Your task to perform on an android device: change the upload size in google photos Image 0: 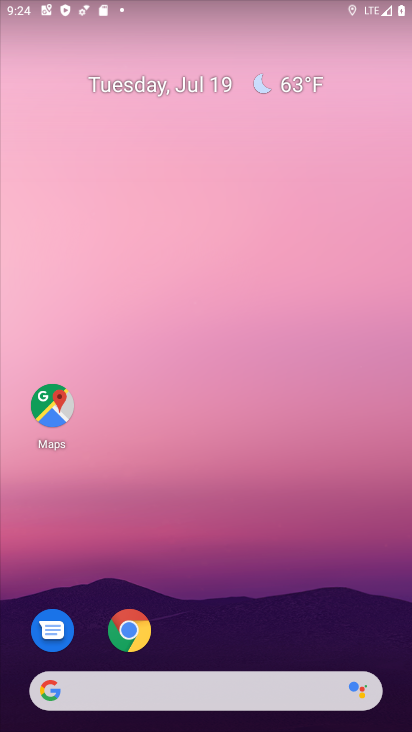
Step 0: drag from (189, 689) to (283, 25)
Your task to perform on an android device: change the upload size in google photos Image 1: 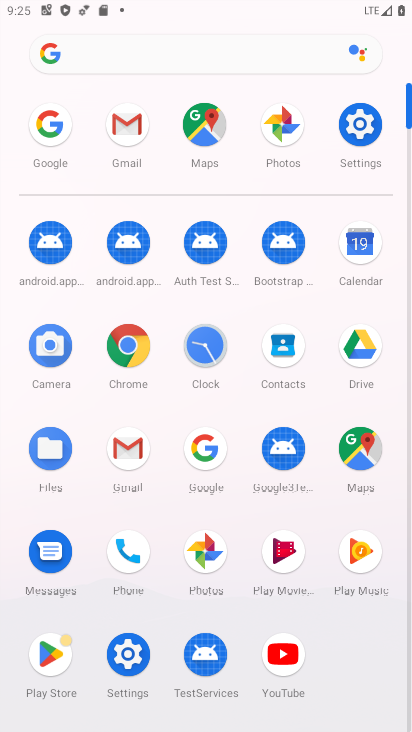
Step 1: click (282, 122)
Your task to perform on an android device: change the upload size in google photos Image 2: 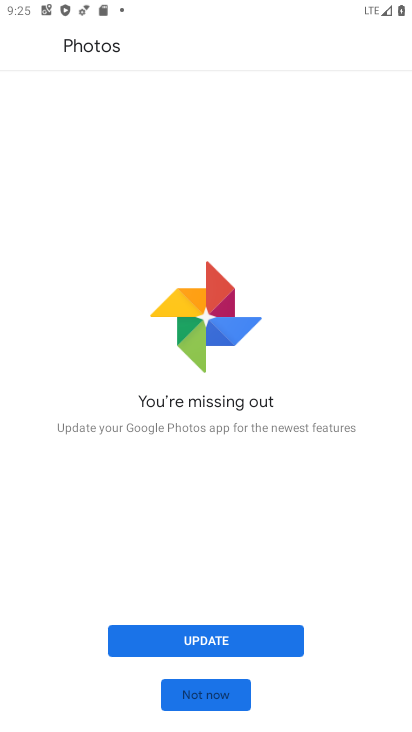
Step 2: click (202, 641)
Your task to perform on an android device: change the upload size in google photos Image 3: 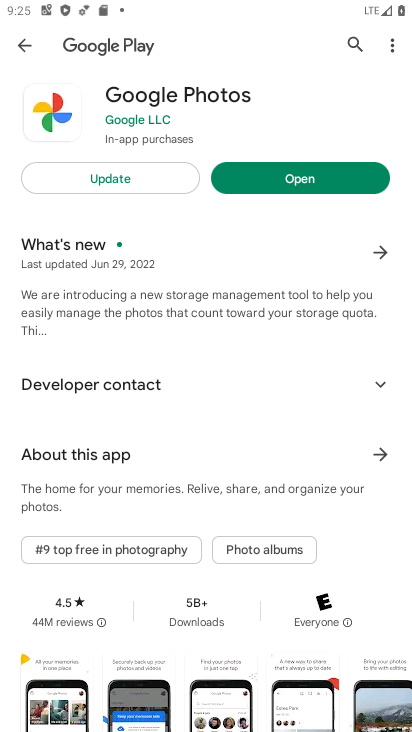
Step 3: click (112, 174)
Your task to perform on an android device: change the upload size in google photos Image 4: 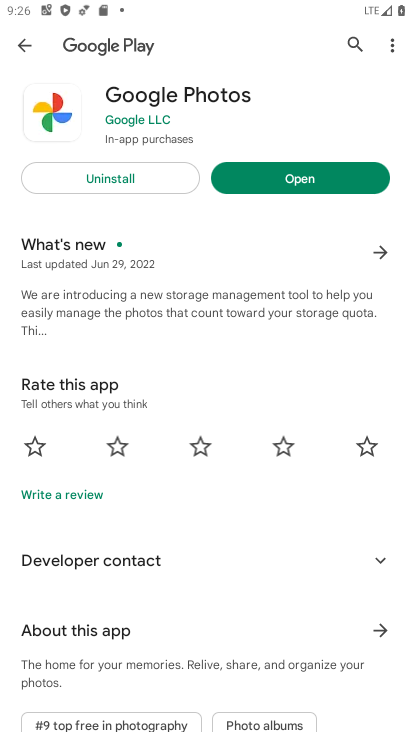
Step 4: click (293, 173)
Your task to perform on an android device: change the upload size in google photos Image 5: 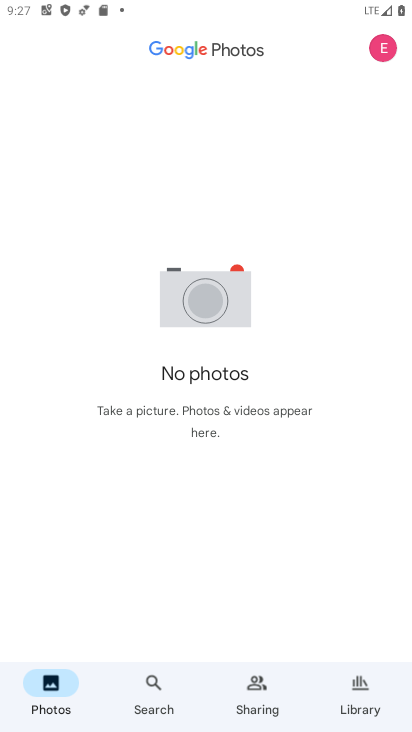
Step 5: click (389, 49)
Your task to perform on an android device: change the upload size in google photos Image 6: 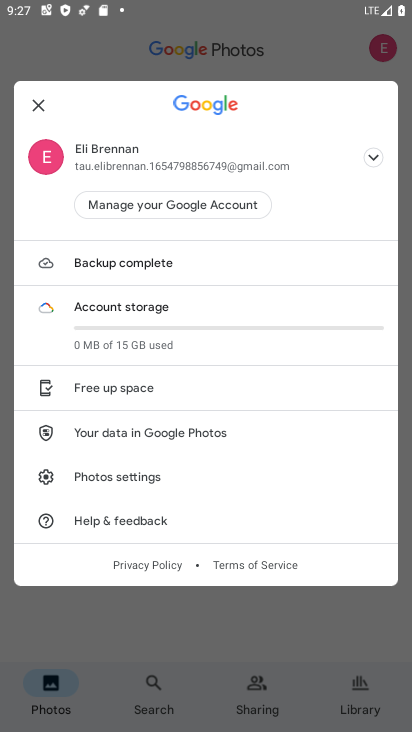
Step 6: click (117, 478)
Your task to perform on an android device: change the upload size in google photos Image 7: 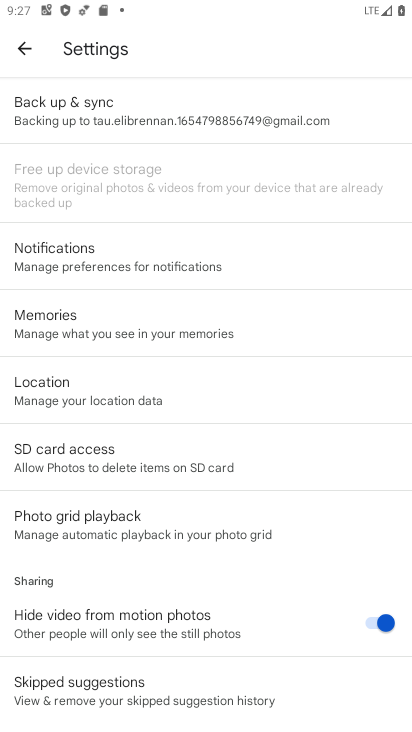
Step 7: click (138, 118)
Your task to perform on an android device: change the upload size in google photos Image 8: 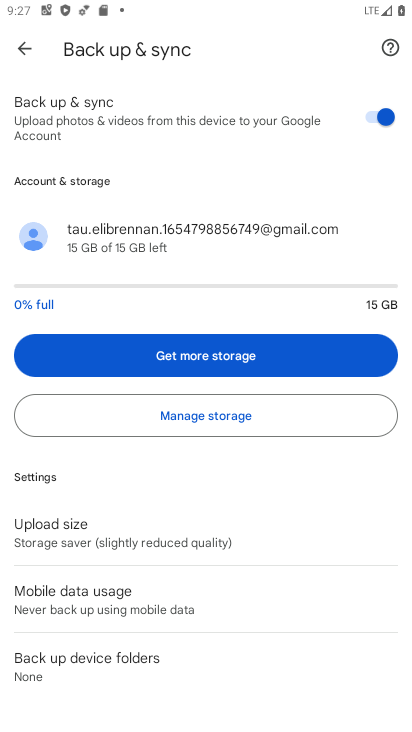
Step 8: click (186, 546)
Your task to perform on an android device: change the upload size in google photos Image 9: 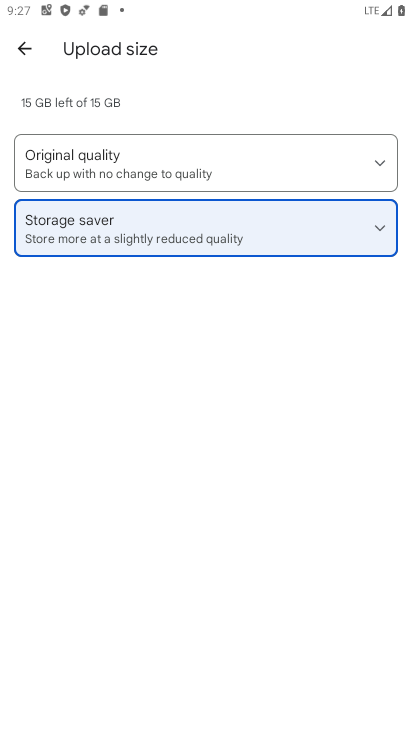
Step 9: click (236, 173)
Your task to perform on an android device: change the upload size in google photos Image 10: 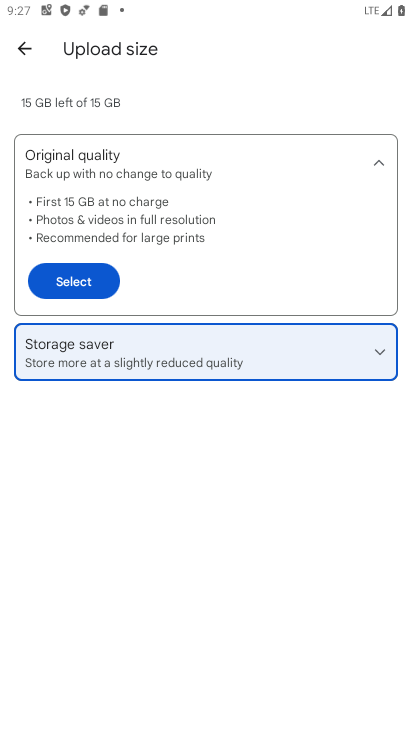
Step 10: click (88, 284)
Your task to perform on an android device: change the upload size in google photos Image 11: 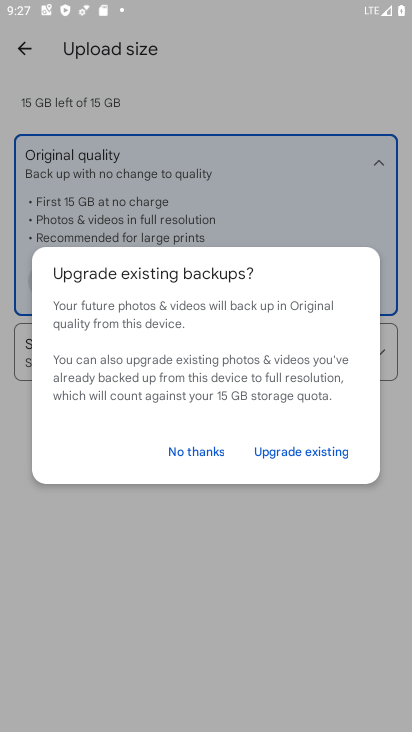
Step 11: click (182, 462)
Your task to perform on an android device: change the upload size in google photos Image 12: 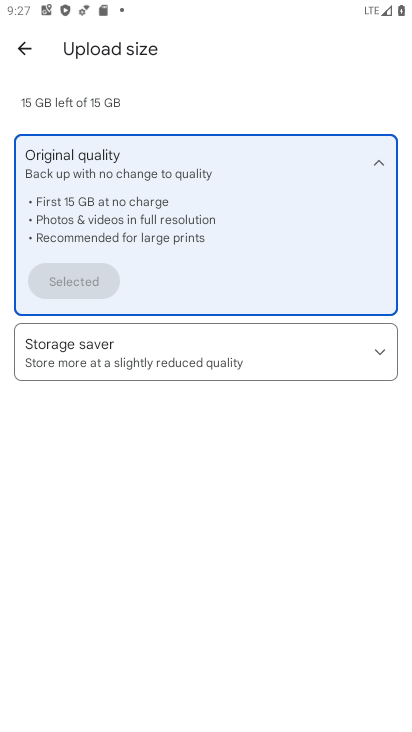
Step 12: task complete